Your task to perform on an android device: set default search engine in the chrome app Image 0: 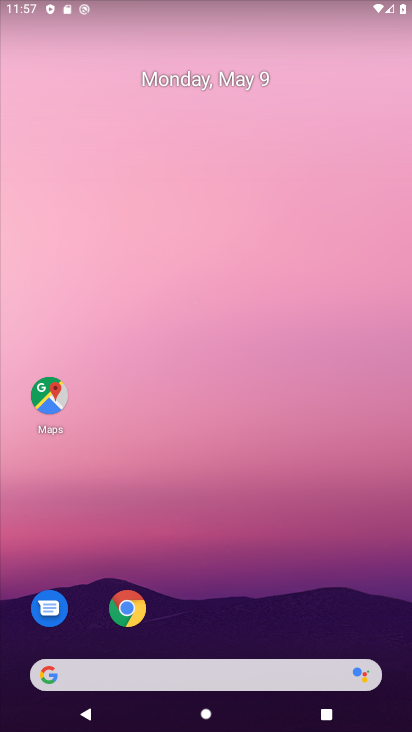
Step 0: drag from (250, 540) to (159, 4)
Your task to perform on an android device: set default search engine in the chrome app Image 1: 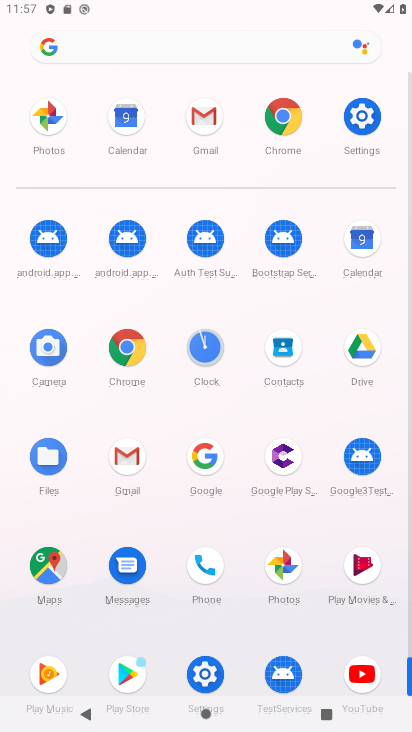
Step 1: click (124, 344)
Your task to perform on an android device: set default search engine in the chrome app Image 2: 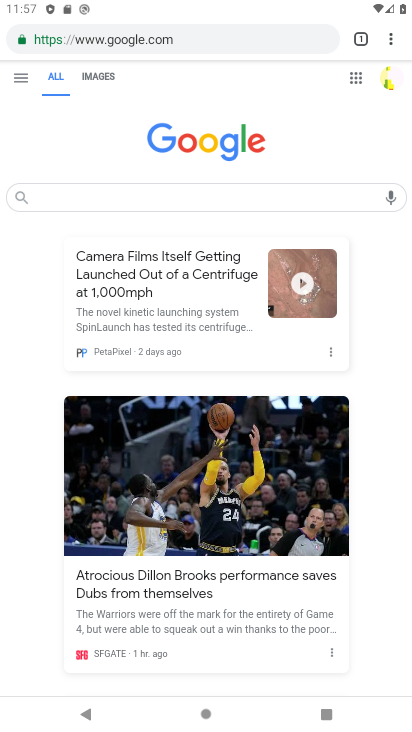
Step 2: drag from (388, 36) to (248, 424)
Your task to perform on an android device: set default search engine in the chrome app Image 3: 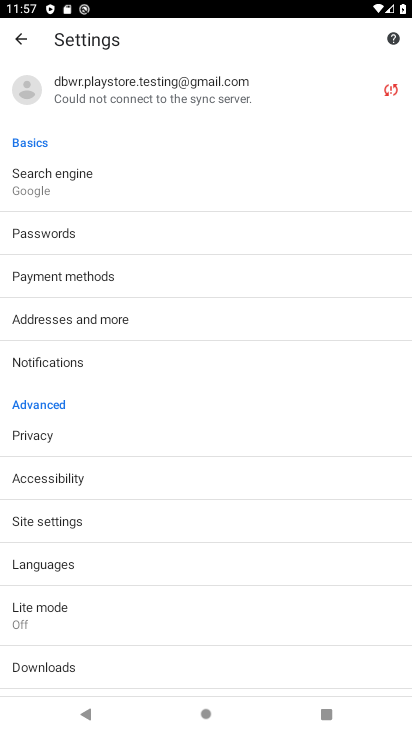
Step 3: click (72, 188)
Your task to perform on an android device: set default search engine in the chrome app Image 4: 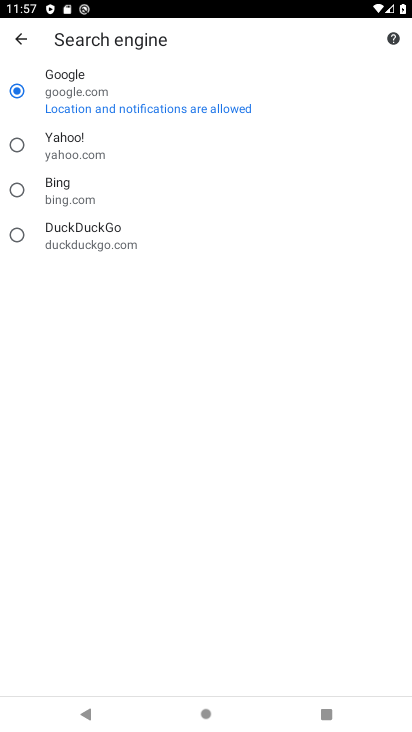
Step 4: click (87, 237)
Your task to perform on an android device: set default search engine in the chrome app Image 5: 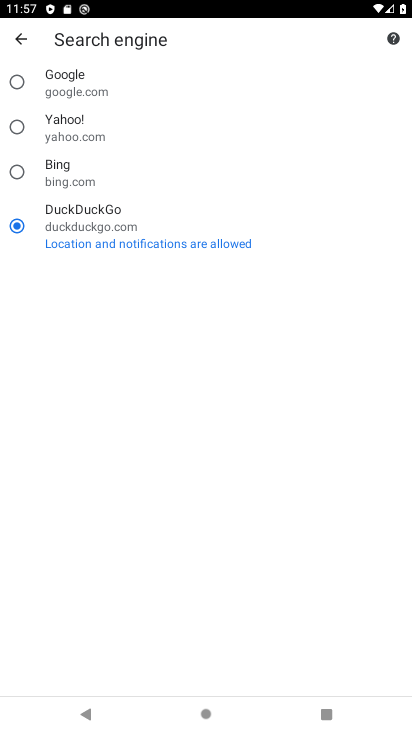
Step 5: click (17, 26)
Your task to perform on an android device: set default search engine in the chrome app Image 6: 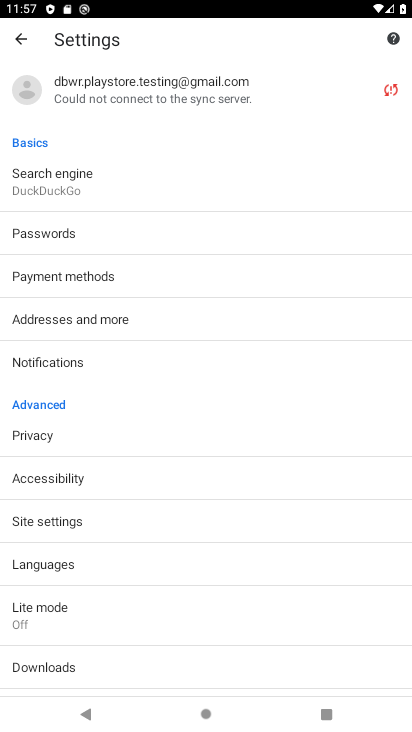
Step 6: task complete